Your task to perform on an android device: Play the last video I watched on Youtube Image 0: 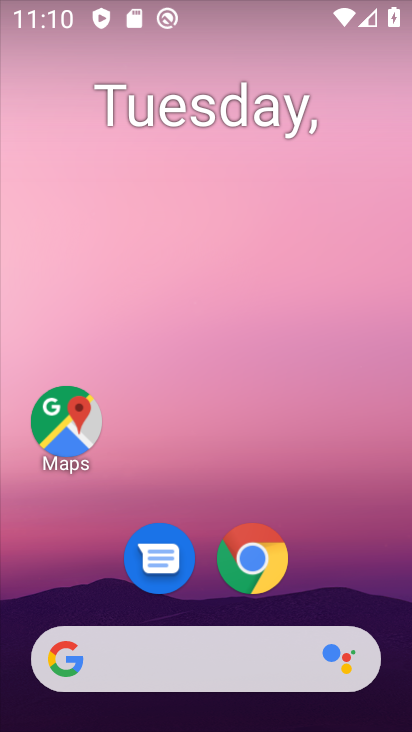
Step 0: drag from (347, 555) to (339, 7)
Your task to perform on an android device: Play the last video I watched on Youtube Image 1: 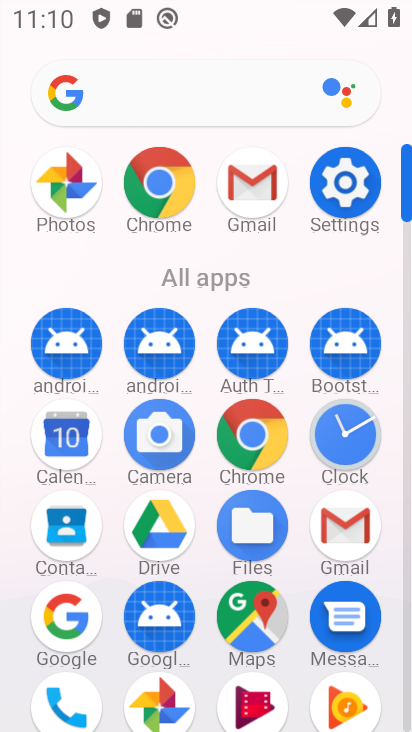
Step 1: drag from (99, 94) to (261, 0)
Your task to perform on an android device: Play the last video I watched on Youtube Image 2: 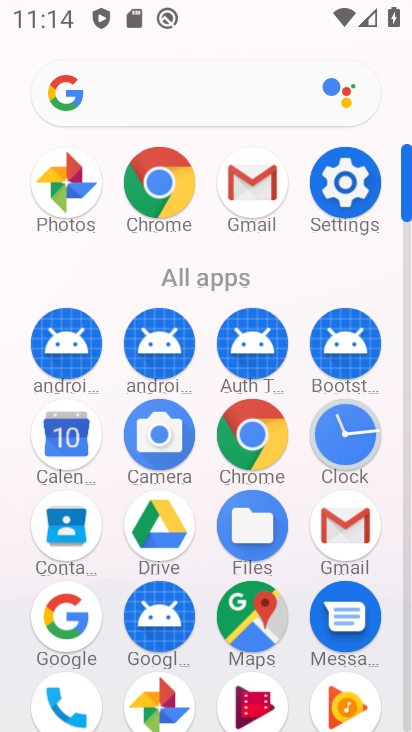
Step 2: click (410, 725)
Your task to perform on an android device: Play the last video I watched on Youtube Image 3: 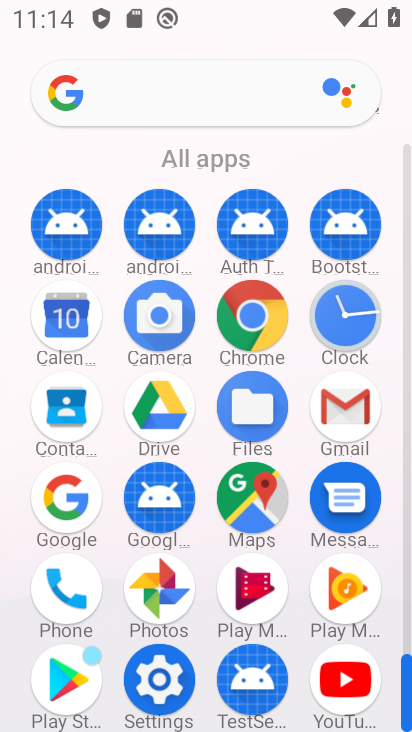
Step 3: click (353, 681)
Your task to perform on an android device: Play the last video I watched on Youtube Image 4: 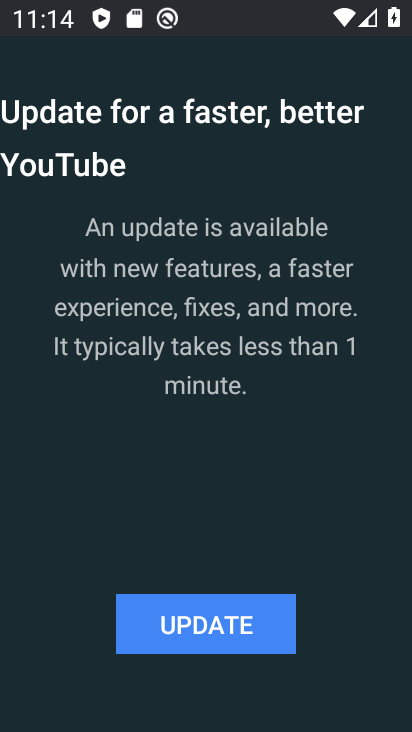
Step 4: click (151, 644)
Your task to perform on an android device: Play the last video I watched on Youtube Image 5: 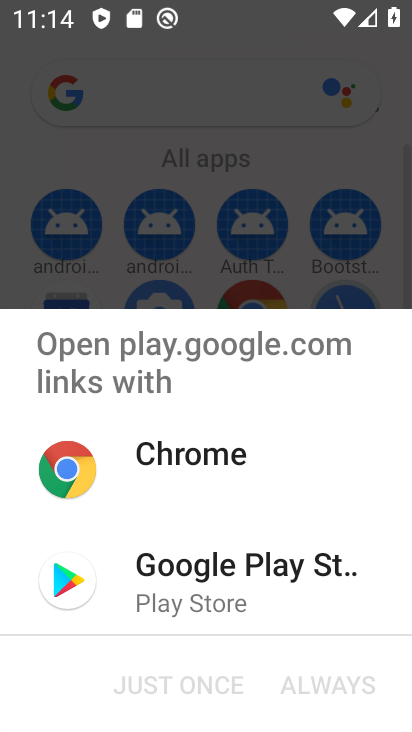
Step 5: click (162, 564)
Your task to perform on an android device: Play the last video I watched on Youtube Image 6: 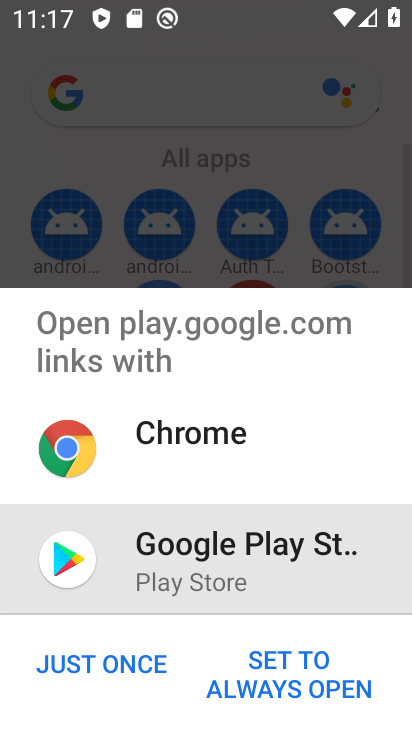
Step 6: click (78, 634)
Your task to perform on an android device: Play the last video I watched on Youtube Image 7: 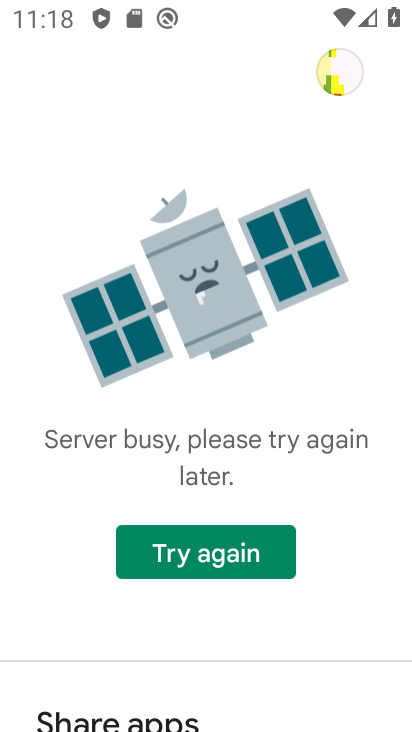
Step 7: task complete